Your task to perform on an android device: delete browsing data in the chrome app Image 0: 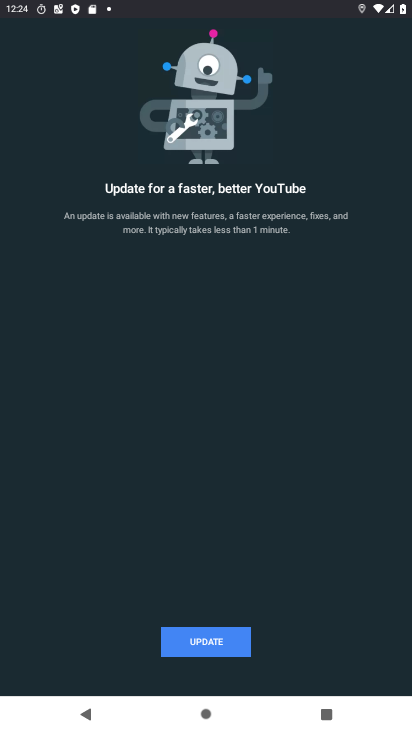
Step 0: press home button
Your task to perform on an android device: delete browsing data in the chrome app Image 1: 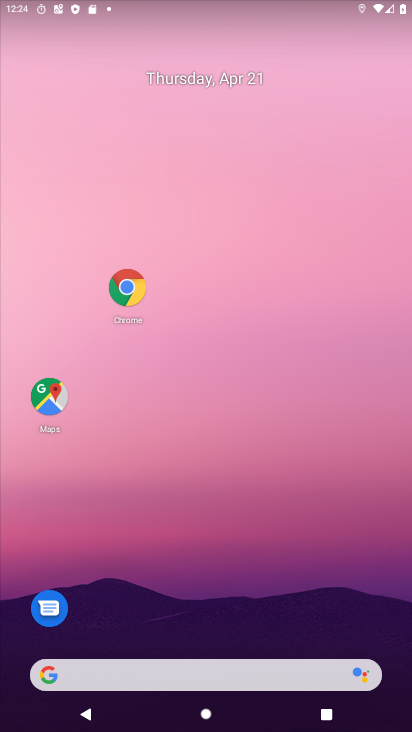
Step 1: click (131, 291)
Your task to perform on an android device: delete browsing data in the chrome app Image 2: 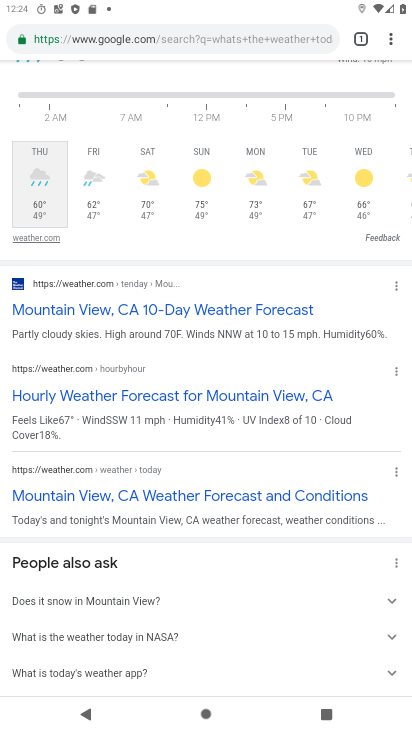
Step 2: drag from (389, 39) to (241, 221)
Your task to perform on an android device: delete browsing data in the chrome app Image 3: 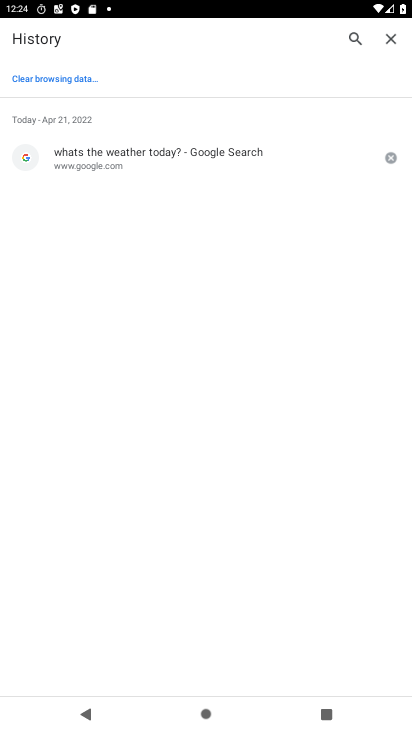
Step 3: click (65, 76)
Your task to perform on an android device: delete browsing data in the chrome app Image 4: 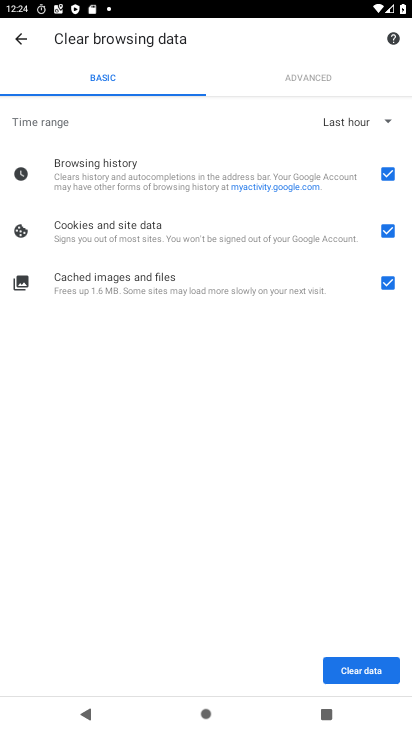
Step 4: click (365, 680)
Your task to perform on an android device: delete browsing data in the chrome app Image 5: 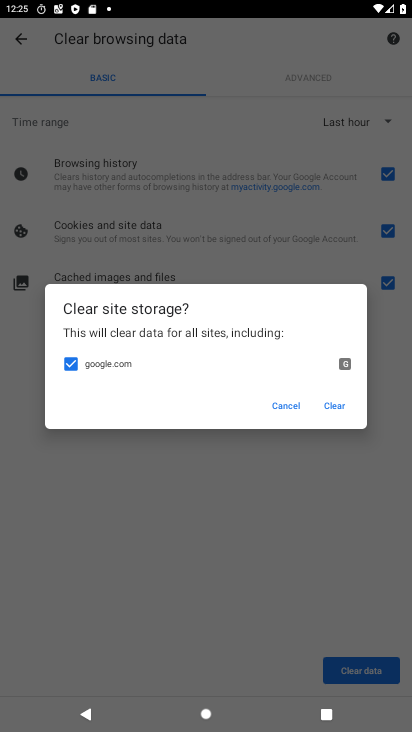
Step 5: click (333, 405)
Your task to perform on an android device: delete browsing data in the chrome app Image 6: 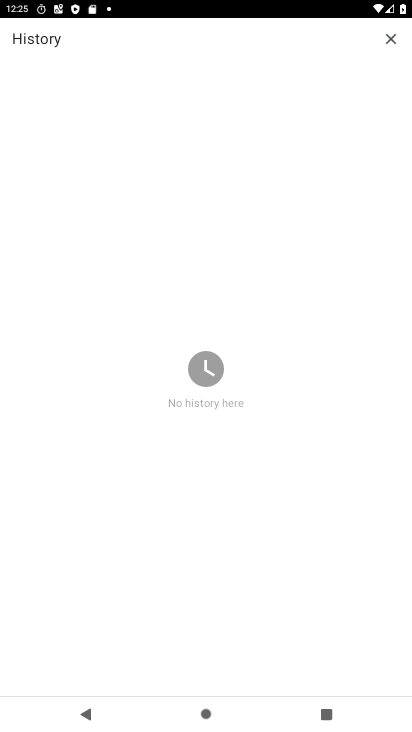
Step 6: task complete